Your task to perform on an android device: turn on priority inbox in the gmail app Image 0: 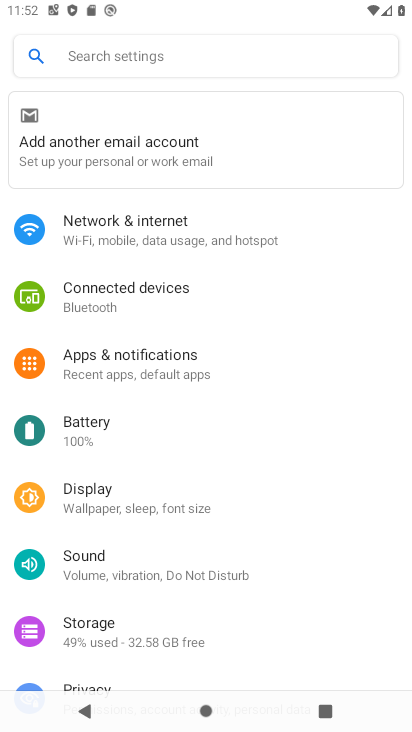
Step 0: press home button
Your task to perform on an android device: turn on priority inbox in the gmail app Image 1: 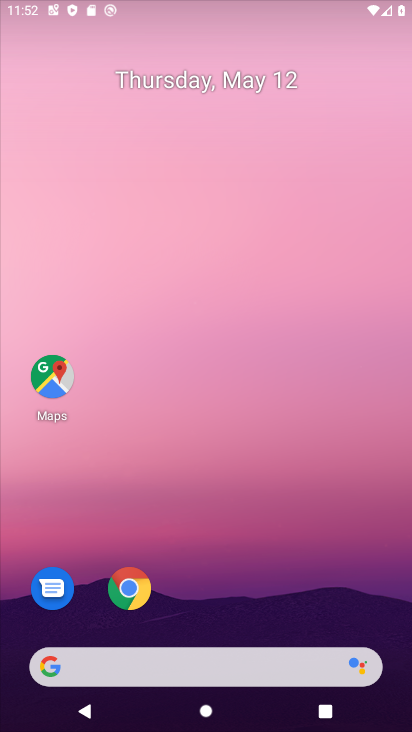
Step 1: drag from (168, 519) to (234, 136)
Your task to perform on an android device: turn on priority inbox in the gmail app Image 2: 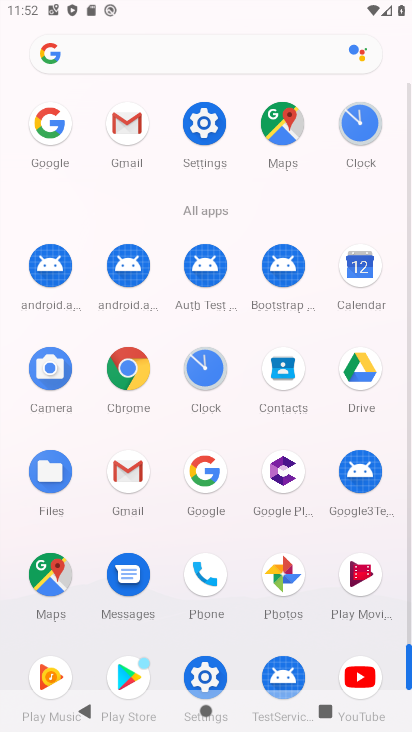
Step 2: click (135, 474)
Your task to perform on an android device: turn on priority inbox in the gmail app Image 3: 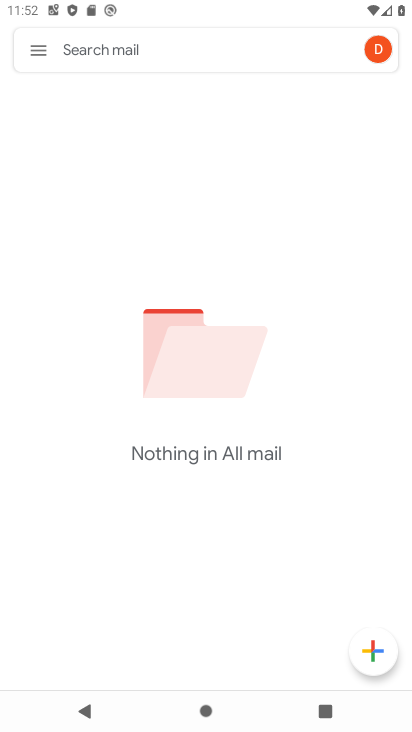
Step 3: click (41, 51)
Your task to perform on an android device: turn on priority inbox in the gmail app Image 4: 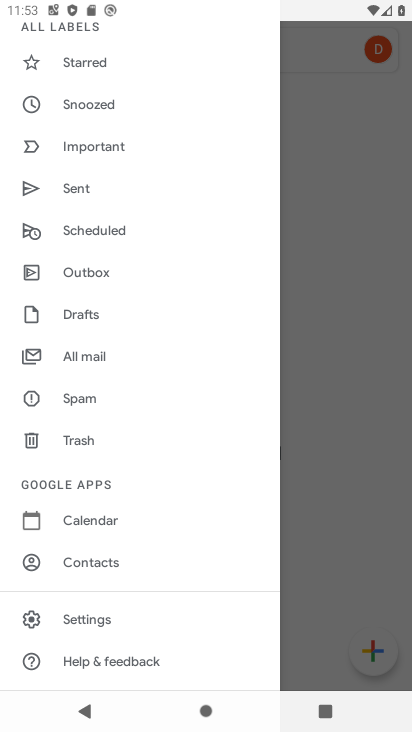
Step 4: click (68, 628)
Your task to perform on an android device: turn on priority inbox in the gmail app Image 5: 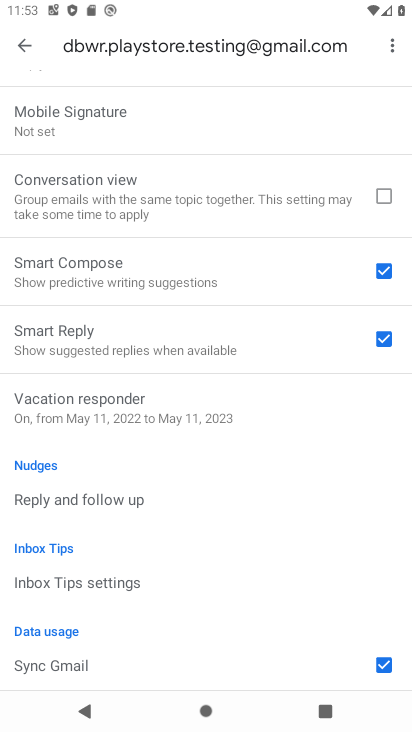
Step 5: drag from (231, 550) to (292, 86)
Your task to perform on an android device: turn on priority inbox in the gmail app Image 6: 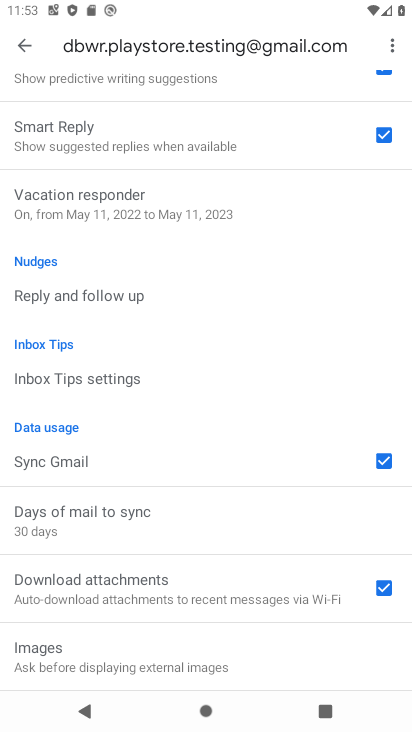
Step 6: drag from (72, 323) to (67, 664)
Your task to perform on an android device: turn on priority inbox in the gmail app Image 7: 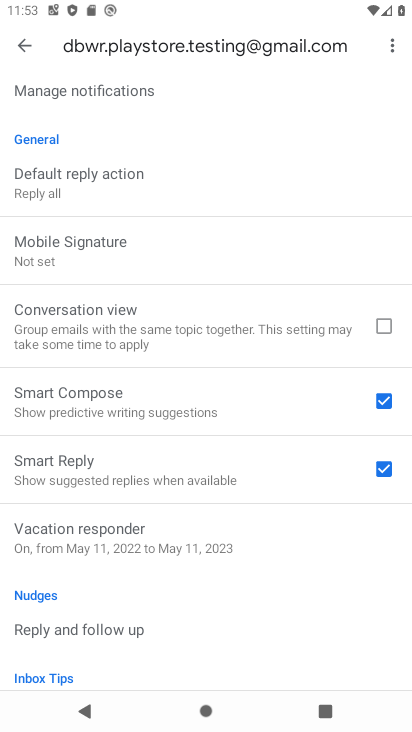
Step 7: drag from (165, 231) to (116, 545)
Your task to perform on an android device: turn on priority inbox in the gmail app Image 8: 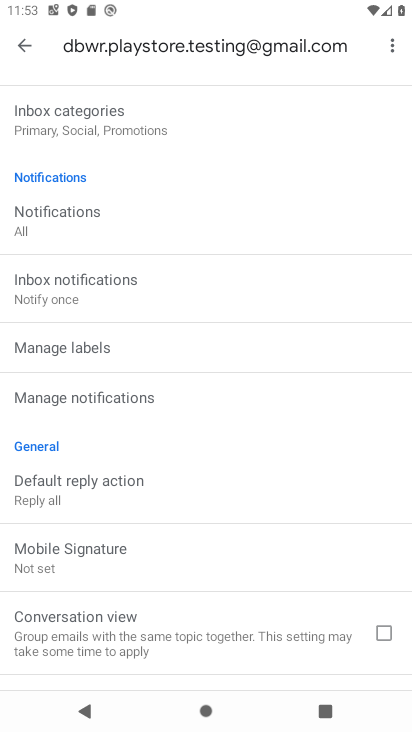
Step 8: drag from (99, 325) to (96, 667)
Your task to perform on an android device: turn on priority inbox in the gmail app Image 9: 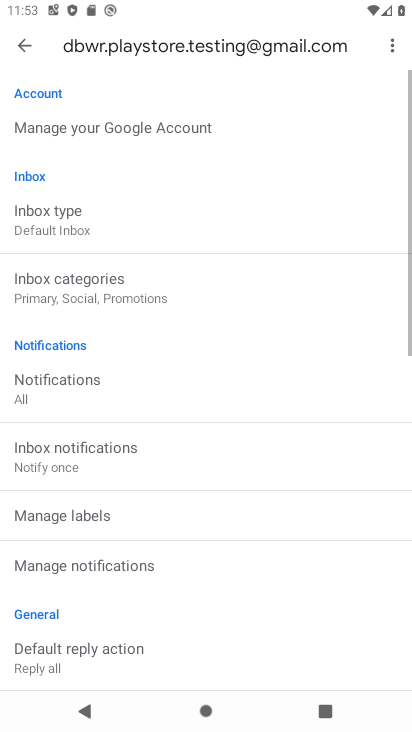
Step 9: click (120, 293)
Your task to perform on an android device: turn on priority inbox in the gmail app Image 10: 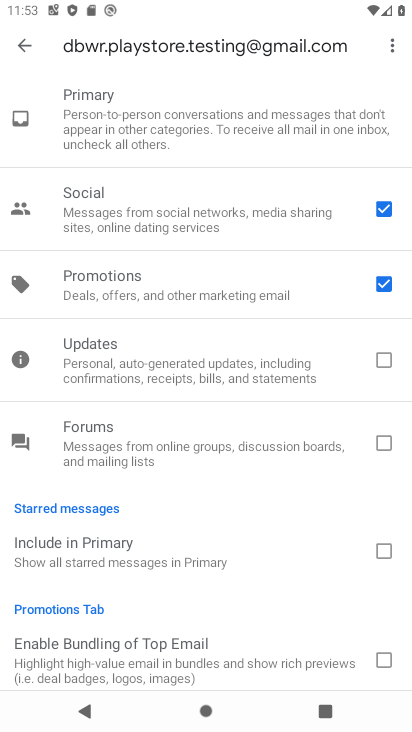
Step 10: click (28, 47)
Your task to perform on an android device: turn on priority inbox in the gmail app Image 11: 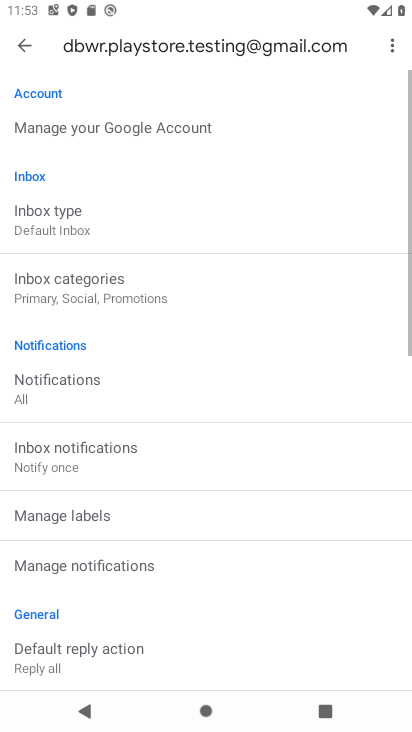
Step 11: task complete